Your task to perform on an android device: check android version Image 0: 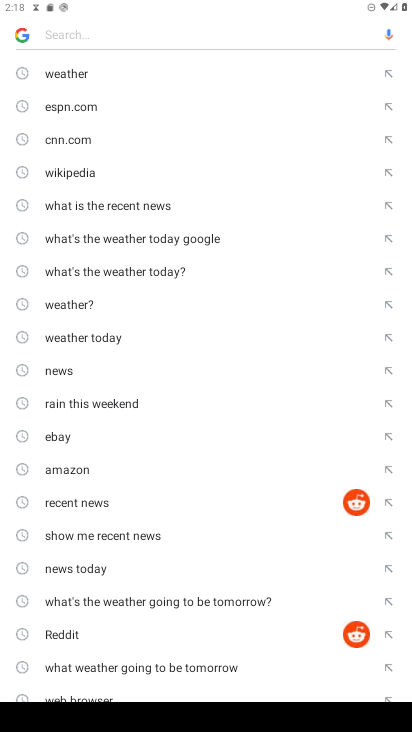
Step 0: press home button
Your task to perform on an android device: check android version Image 1: 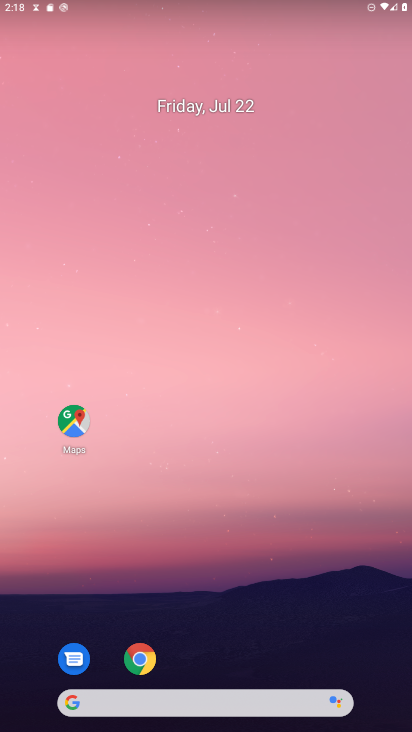
Step 1: drag from (314, 488) to (357, 1)
Your task to perform on an android device: check android version Image 2: 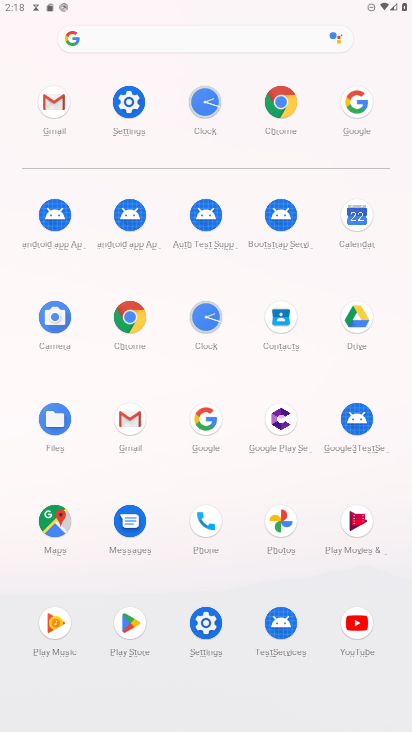
Step 2: click (129, 114)
Your task to perform on an android device: check android version Image 3: 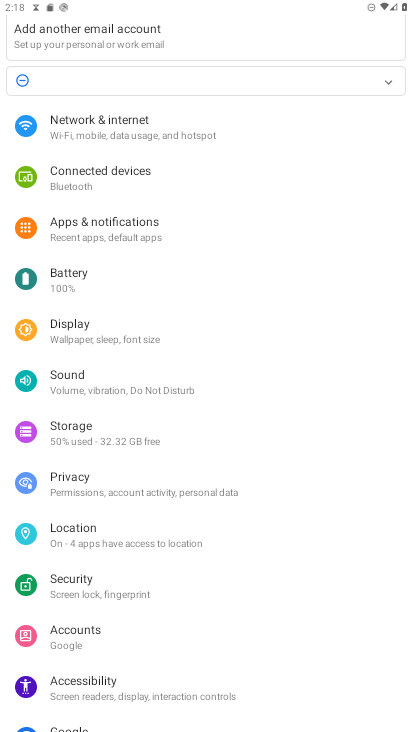
Step 3: drag from (173, 563) to (273, 4)
Your task to perform on an android device: check android version Image 4: 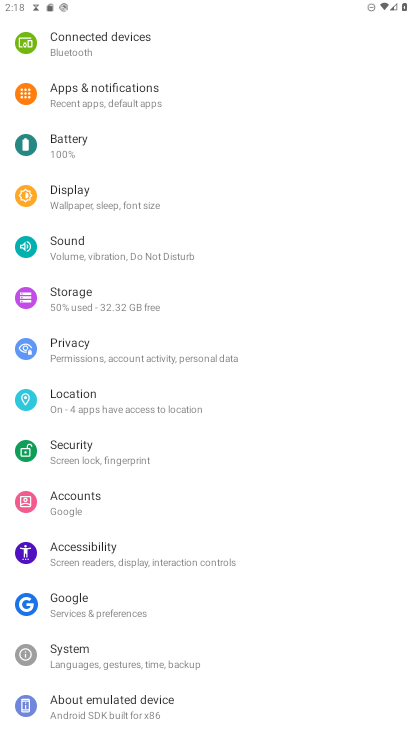
Step 4: drag from (176, 633) to (287, 30)
Your task to perform on an android device: check android version Image 5: 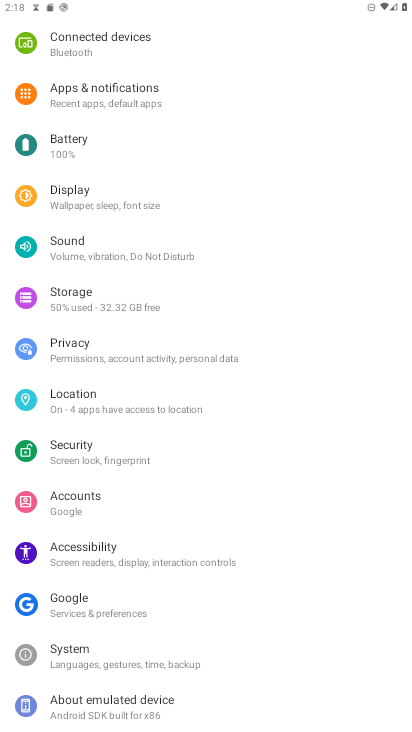
Step 5: click (100, 709)
Your task to perform on an android device: check android version Image 6: 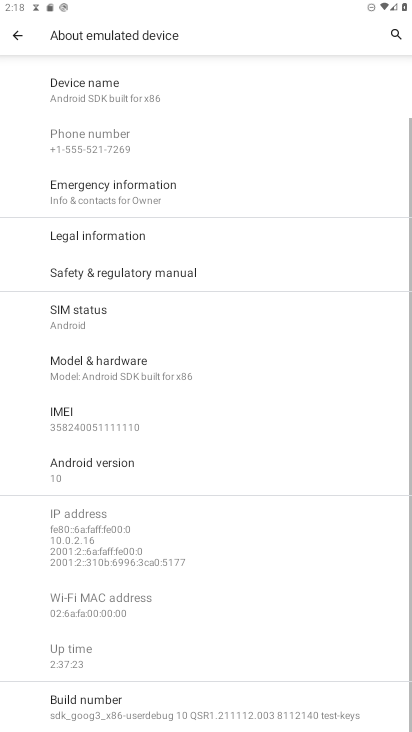
Step 6: click (116, 485)
Your task to perform on an android device: check android version Image 7: 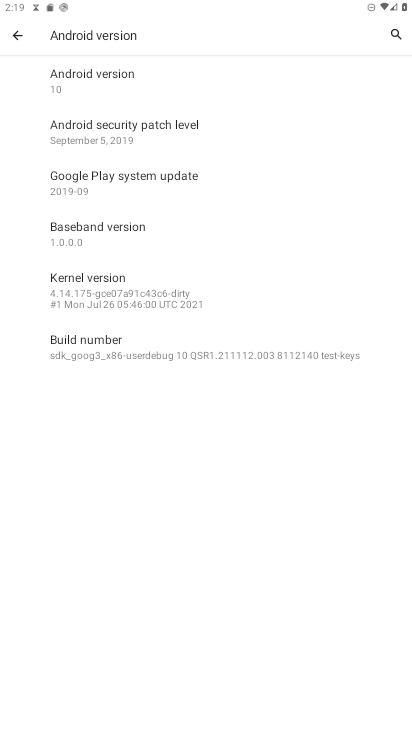
Step 7: click (103, 75)
Your task to perform on an android device: check android version Image 8: 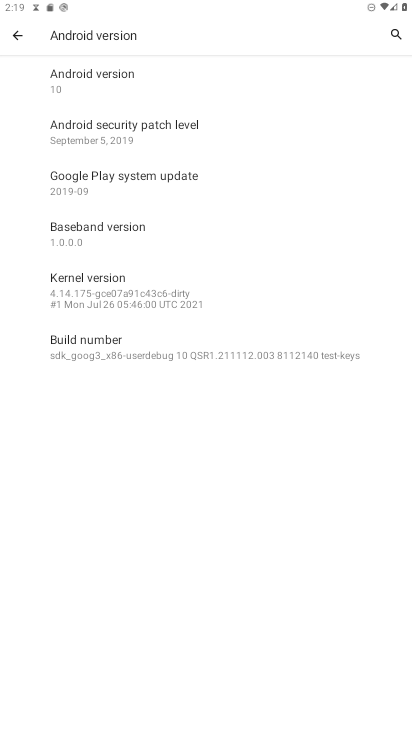
Step 8: task complete